Your task to perform on an android device: turn on location history Image 0: 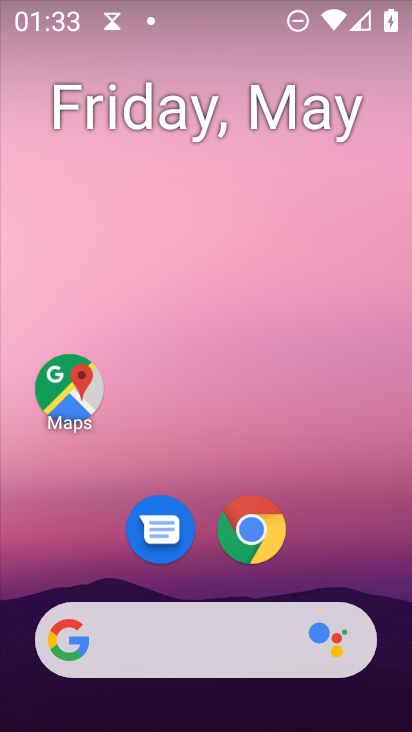
Step 0: click (237, 518)
Your task to perform on an android device: turn on location history Image 1: 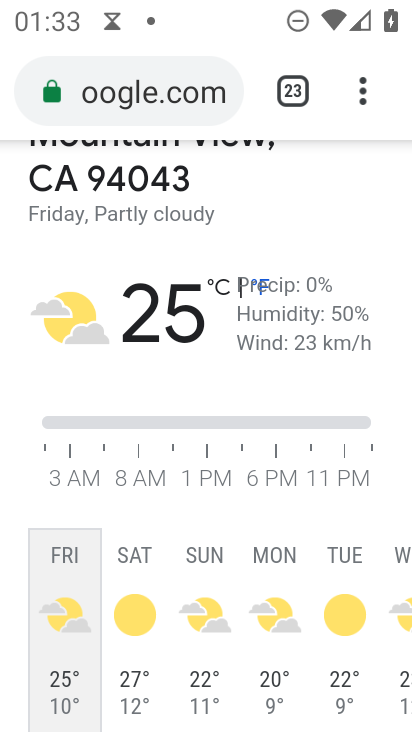
Step 1: press home button
Your task to perform on an android device: turn on location history Image 2: 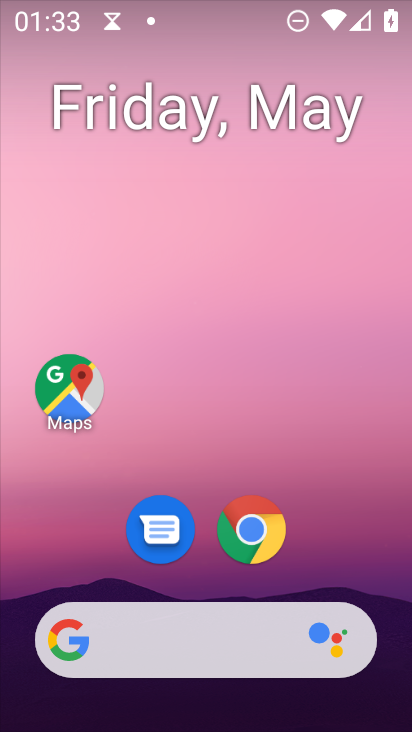
Step 2: click (322, 184)
Your task to perform on an android device: turn on location history Image 3: 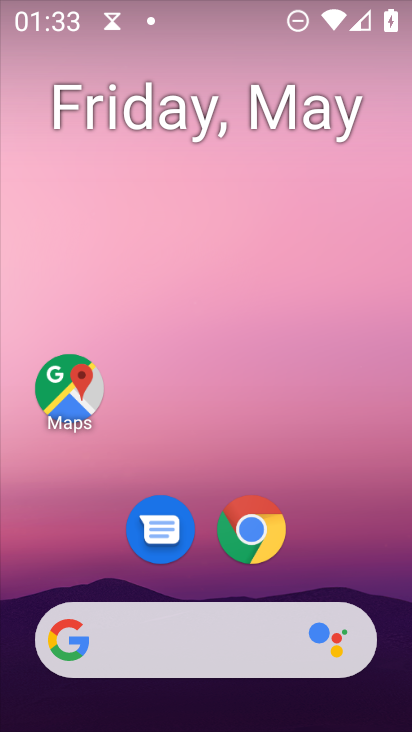
Step 3: drag from (179, 608) to (224, 240)
Your task to perform on an android device: turn on location history Image 4: 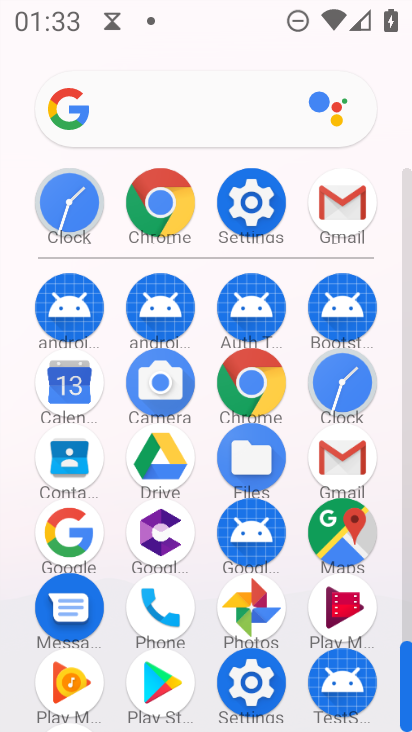
Step 4: click (242, 210)
Your task to perform on an android device: turn on location history Image 5: 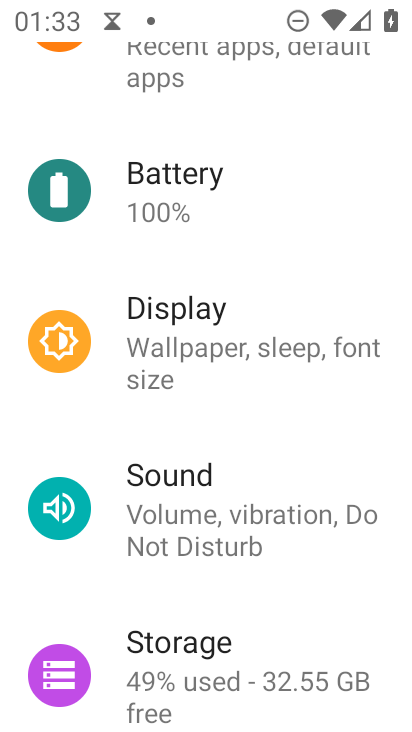
Step 5: drag from (154, 164) to (249, 129)
Your task to perform on an android device: turn on location history Image 6: 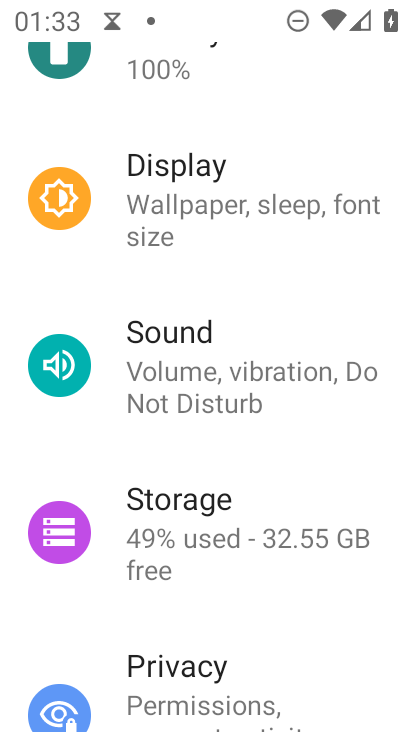
Step 6: drag from (228, 612) to (300, 102)
Your task to perform on an android device: turn on location history Image 7: 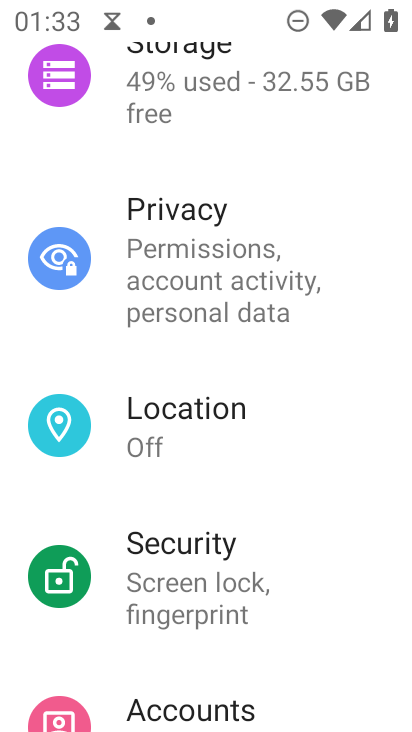
Step 7: click (162, 432)
Your task to perform on an android device: turn on location history Image 8: 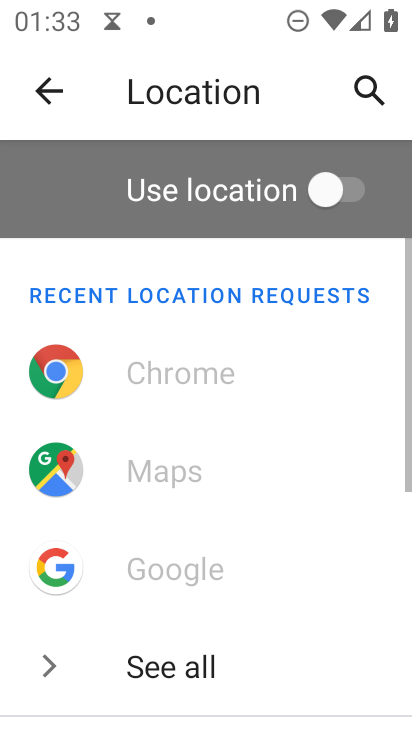
Step 8: click (348, 180)
Your task to perform on an android device: turn on location history Image 9: 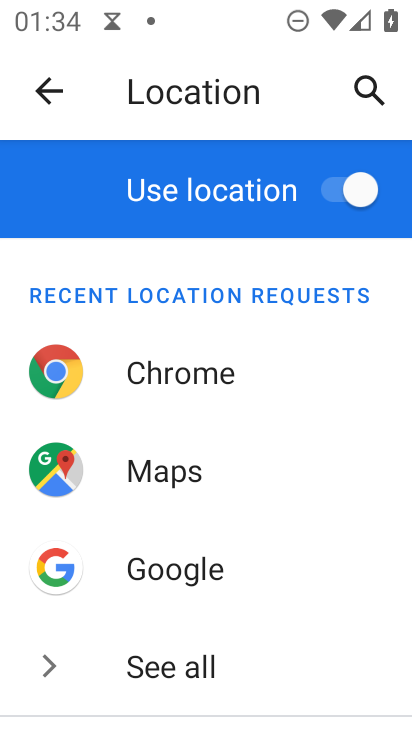
Step 9: task complete